Your task to perform on an android device: Go to settings Image 0: 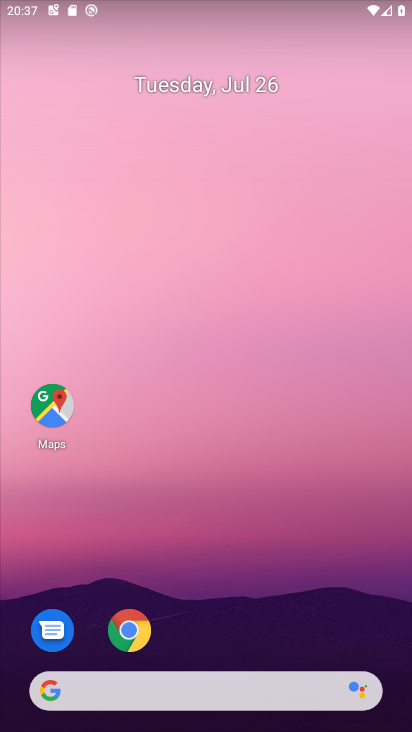
Step 0: drag from (393, 702) to (316, 96)
Your task to perform on an android device: Go to settings Image 1: 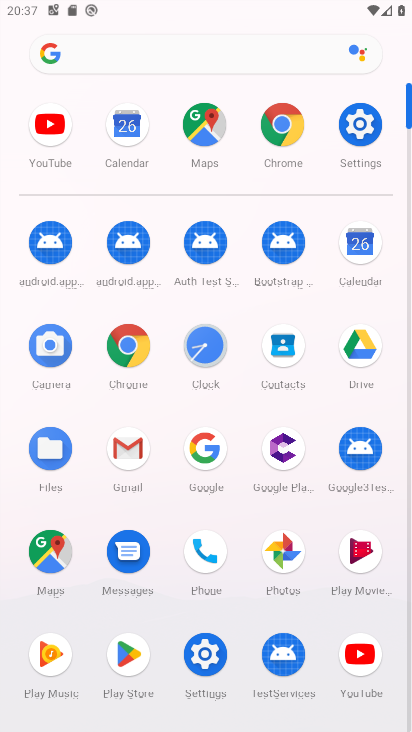
Step 1: click (356, 125)
Your task to perform on an android device: Go to settings Image 2: 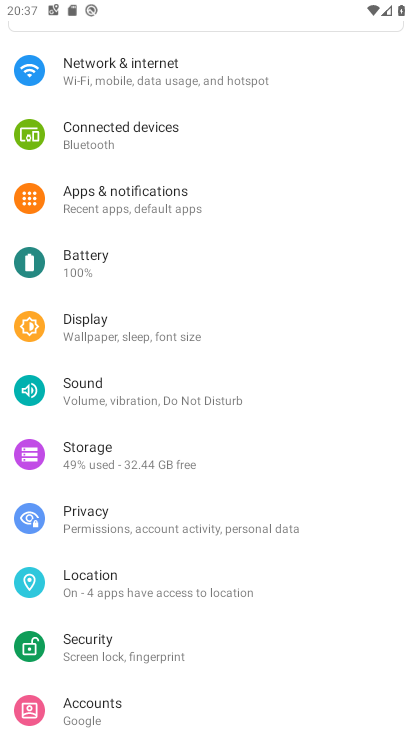
Step 2: task complete